Your task to perform on an android device: set default search engine in the chrome app Image 0: 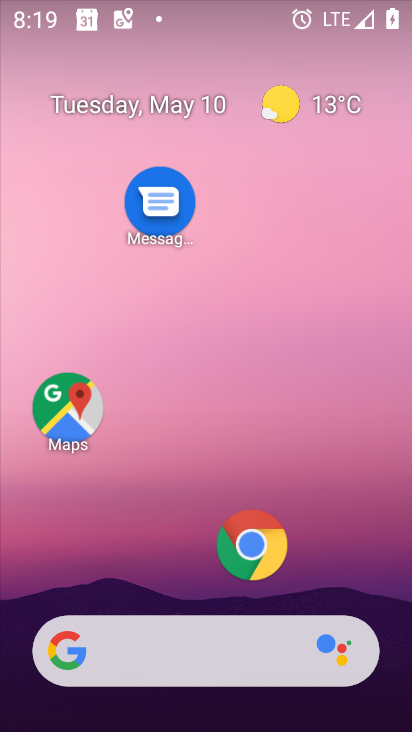
Step 0: click (251, 542)
Your task to perform on an android device: set default search engine in the chrome app Image 1: 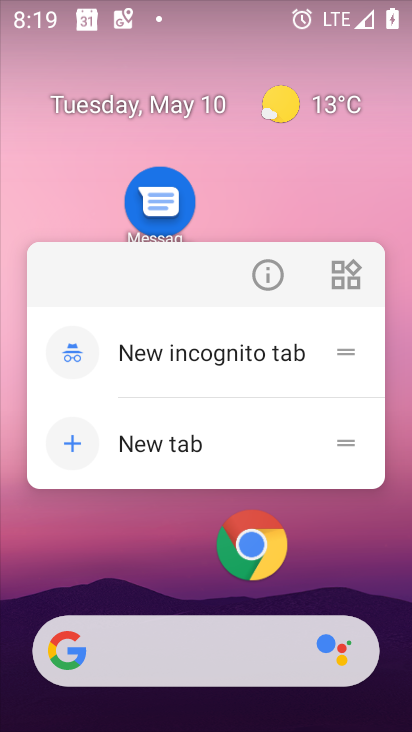
Step 1: click (254, 535)
Your task to perform on an android device: set default search engine in the chrome app Image 2: 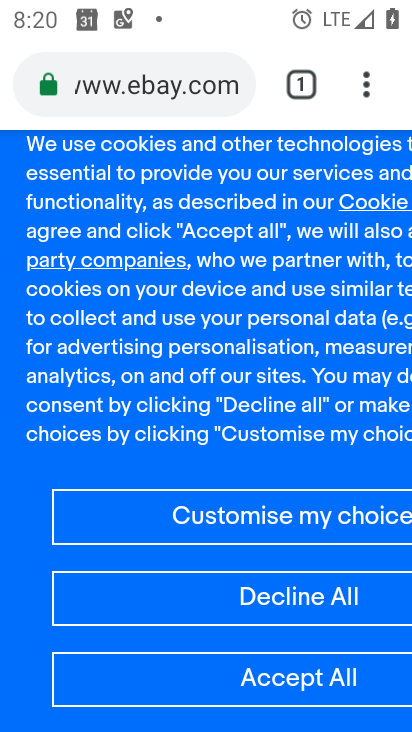
Step 2: click (373, 89)
Your task to perform on an android device: set default search engine in the chrome app Image 3: 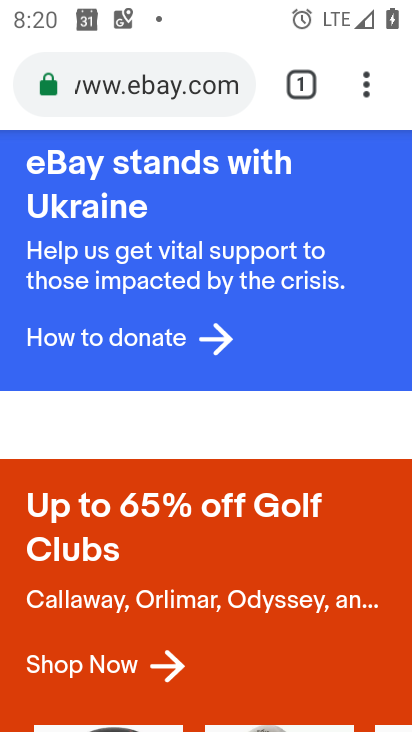
Step 3: click (369, 89)
Your task to perform on an android device: set default search engine in the chrome app Image 4: 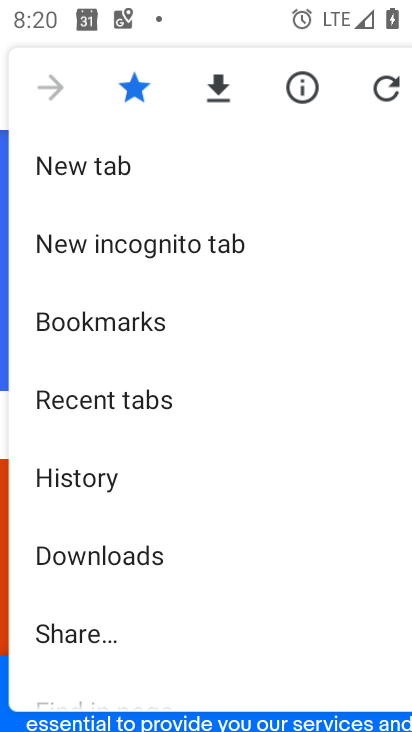
Step 4: drag from (177, 619) to (148, 69)
Your task to perform on an android device: set default search engine in the chrome app Image 5: 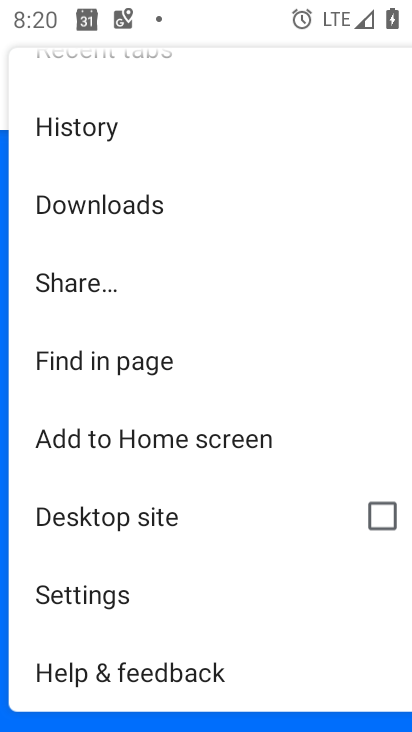
Step 5: click (133, 582)
Your task to perform on an android device: set default search engine in the chrome app Image 6: 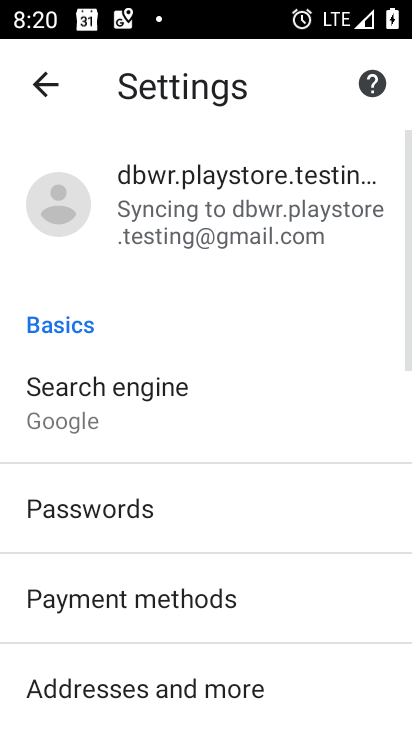
Step 6: click (114, 417)
Your task to perform on an android device: set default search engine in the chrome app Image 7: 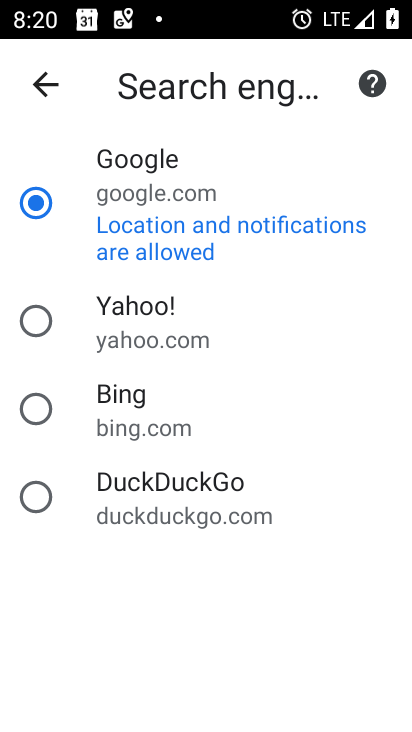
Step 7: click (30, 404)
Your task to perform on an android device: set default search engine in the chrome app Image 8: 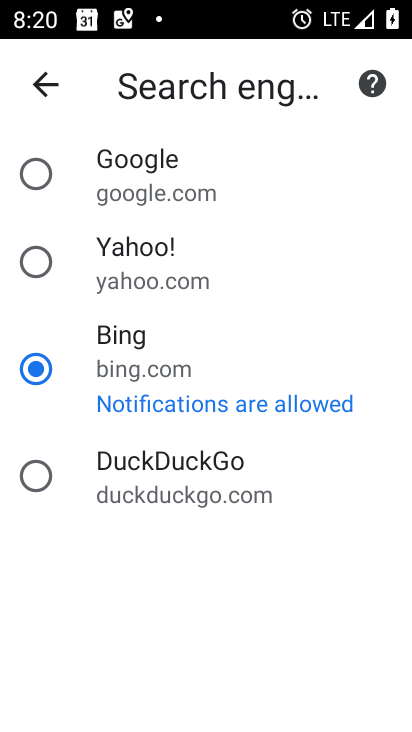
Step 8: task complete